Your task to perform on an android device: See recent photos Image 0: 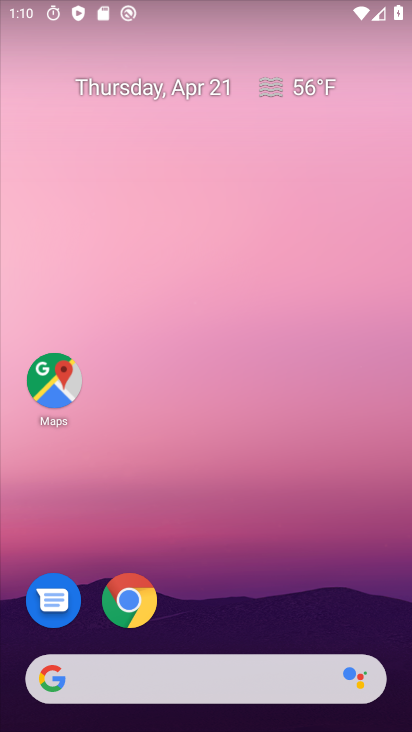
Step 0: click (316, 203)
Your task to perform on an android device: See recent photos Image 1: 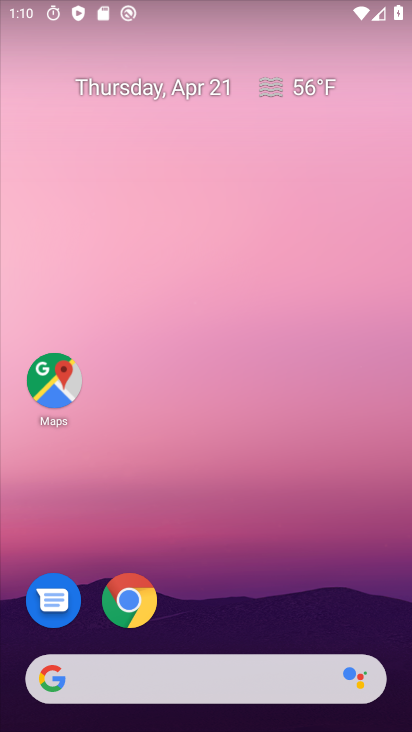
Step 1: drag from (358, 294) to (352, 246)
Your task to perform on an android device: See recent photos Image 2: 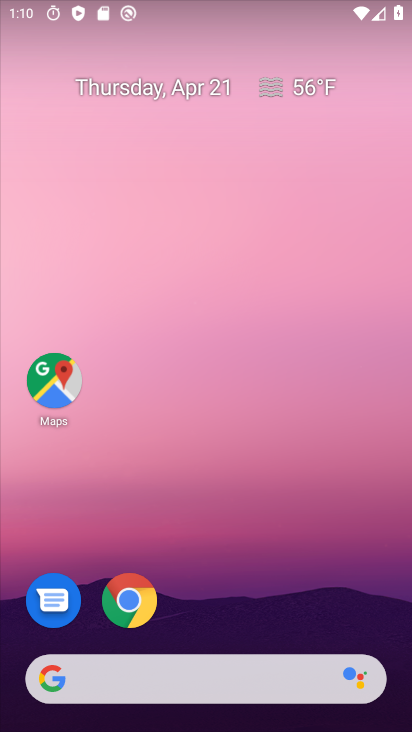
Step 2: drag from (392, 654) to (329, 84)
Your task to perform on an android device: See recent photos Image 3: 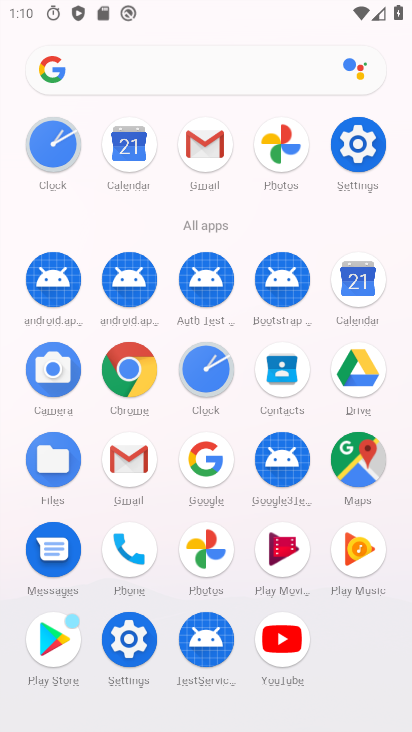
Step 3: click (289, 136)
Your task to perform on an android device: See recent photos Image 4: 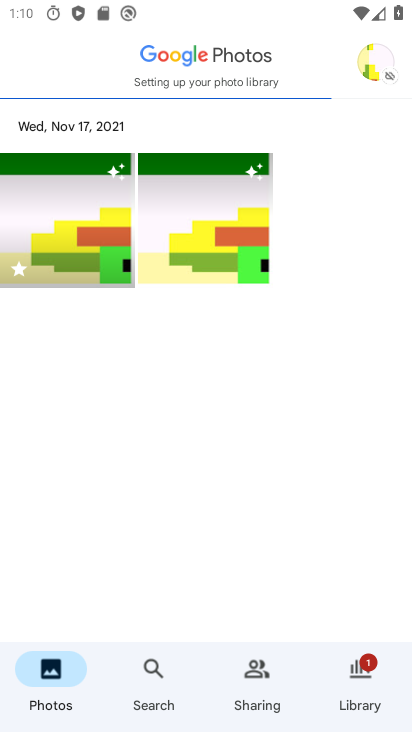
Step 4: click (67, 215)
Your task to perform on an android device: See recent photos Image 5: 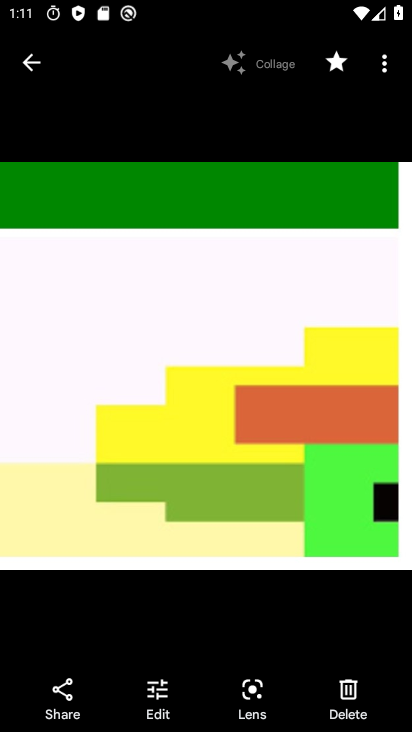
Step 5: click (28, 51)
Your task to perform on an android device: See recent photos Image 6: 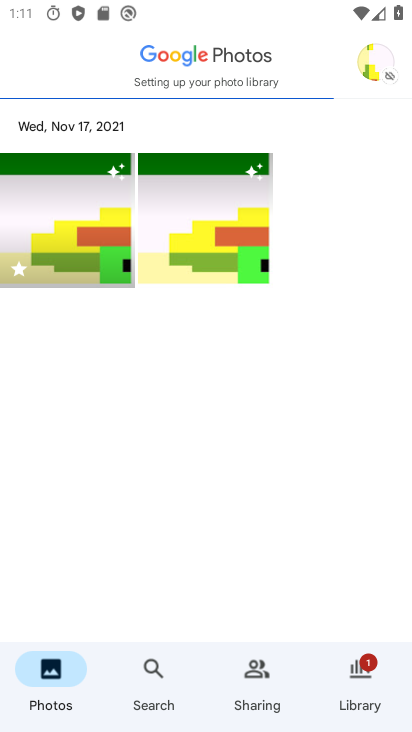
Step 6: click (234, 246)
Your task to perform on an android device: See recent photos Image 7: 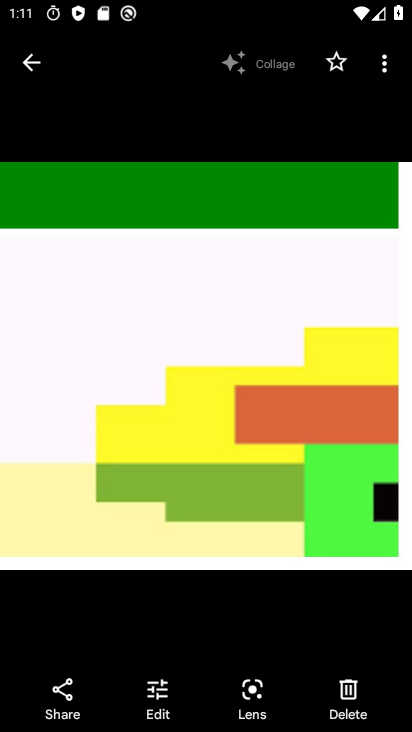
Step 7: click (25, 54)
Your task to perform on an android device: See recent photos Image 8: 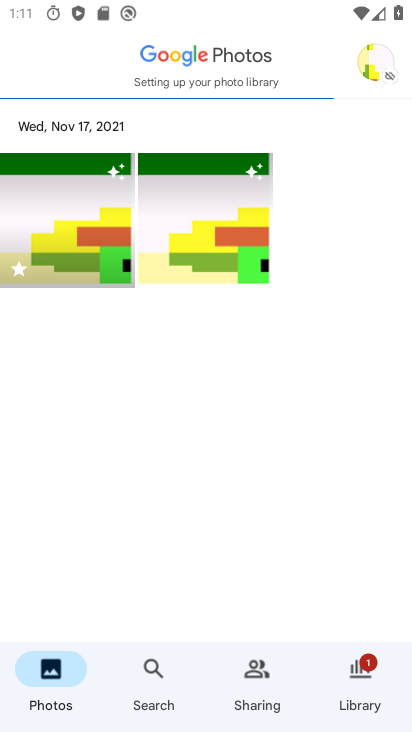
Step 8: task complete